Your task to perform on an android device: Search for sushi restaurants on Maps Image 0: 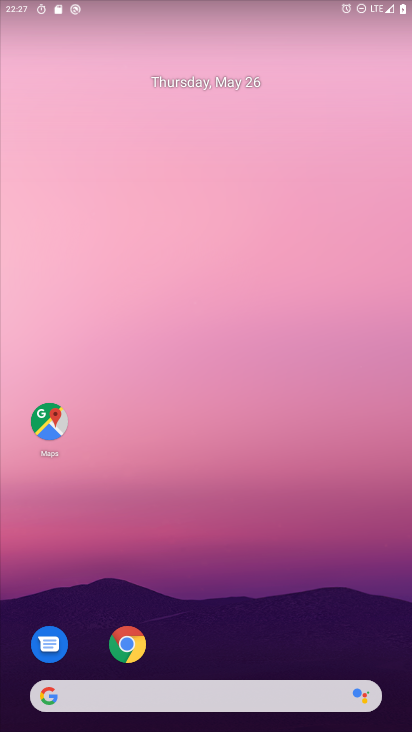
Step 0: drag from (184, 654) to (302, 163)
Your task to perform on an android device: Search for sushi restaurants on Maps Image 1: 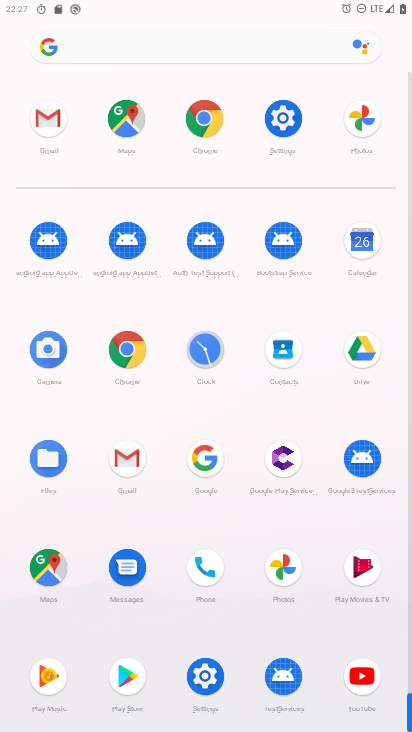
Step 1: click (57, 549)
Your task to perform on an android device: Search for sushi restaurants on Maps Image 2: 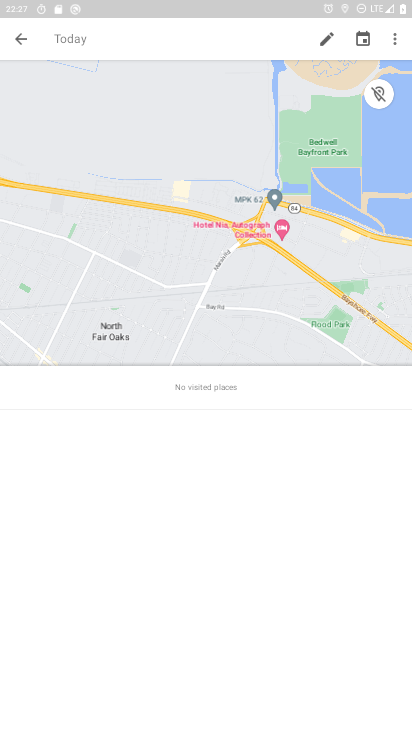
Step 2: drag from (215, 544) to (279, 246)
Your task to perform on an android device: Search for sushi restaurants on Maps Image 3: 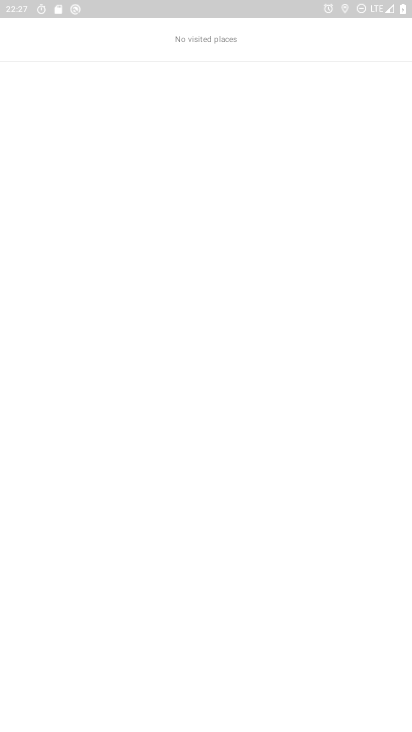
Step 3: press back button
Your task to perform on an android device: Search for sushi restaurants on Maps Image 4: 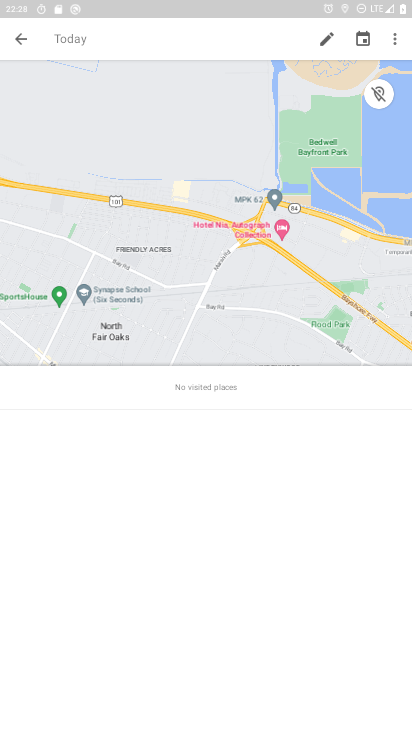
Step 4: click (29, 43)
Your task to perform on an android device: Search for sushi restaurants on Maps Image 5: 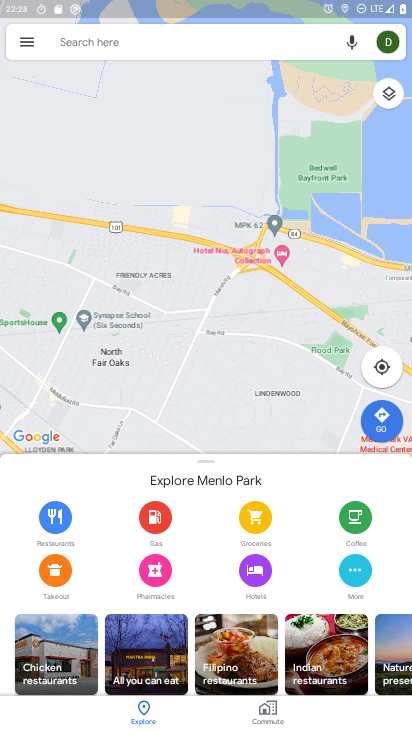
Step 5: click (143, 35)
Your task to perform on an android device: Search for sushi restaurants on Maps Image 6: 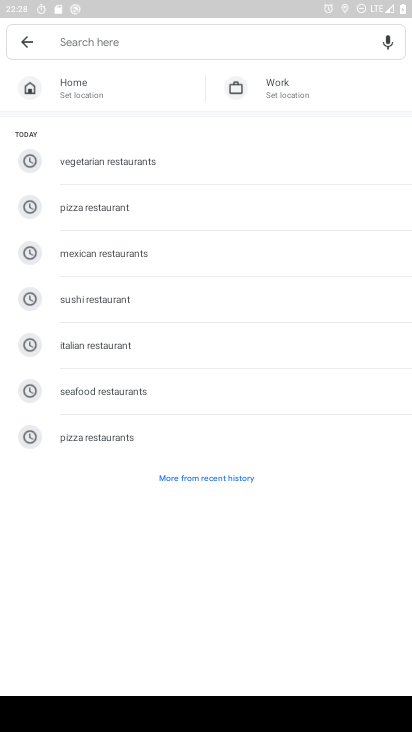
Step 6: click (99, 307)
Your task to perform on an android device: Search for sushi restaurants on Maps Image 7: 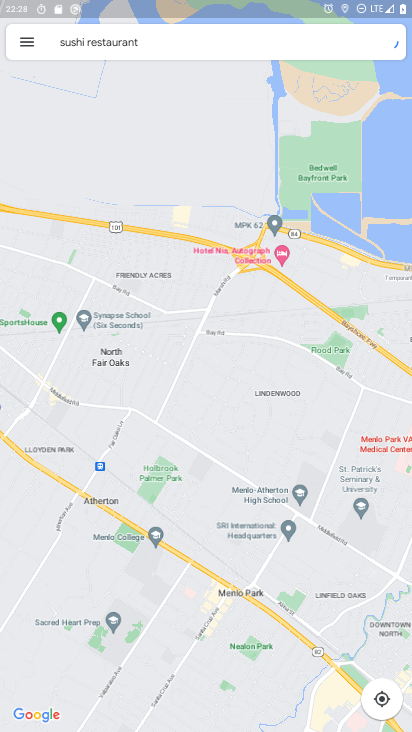
Step 7: task complete